Your task to perform on an android device: add a label to a message in the gmail app Image 0: 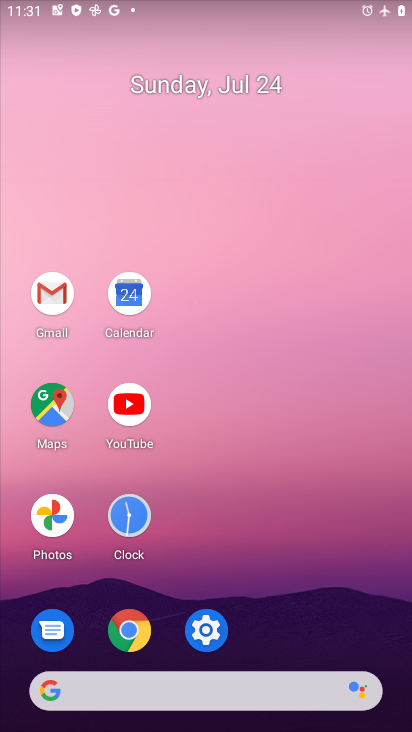
Step 0: click (50, 301)
Your task to perform on an android device: add a label to a message in the gmail app Image 1: 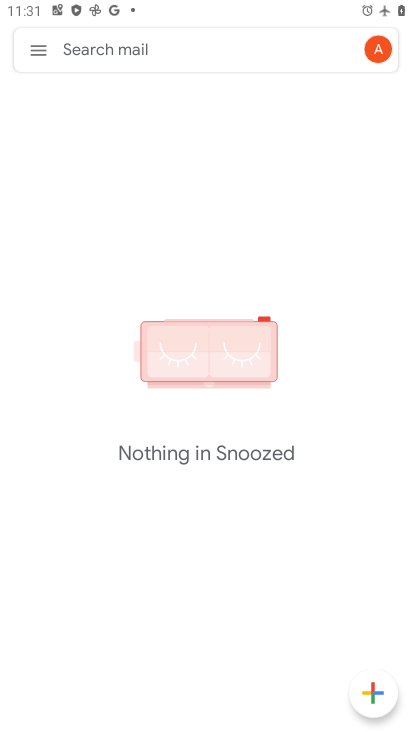
Step 1: click (36, 49)
Your task to perform on an android device: add a label to a message in the gmail app Image 2: 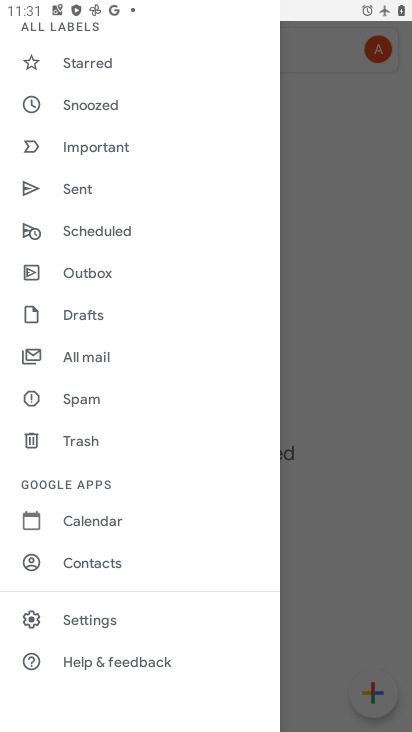
Step 2: click (87, 346)
Your task to perform on an android device: add a label to a message in the gmail app Image 3: 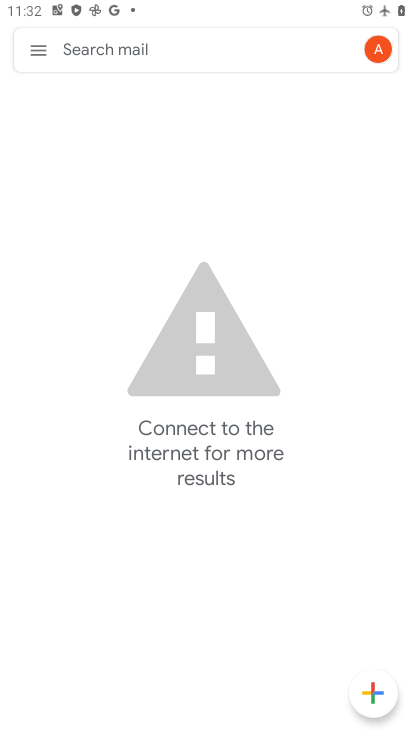
Step 3: task complete